Your task to perform on an android device: Search for seafood restaurants on Google Maps Image 0: 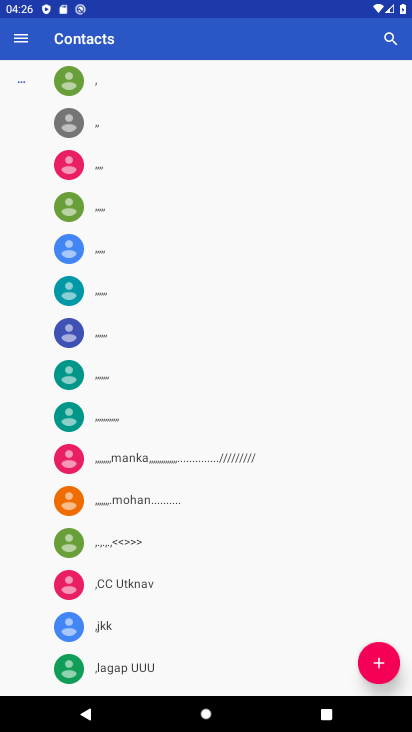
Step 0: press back button
Your task to perform on an android device: Search for seafood restaurants on Google Maps Image 1: 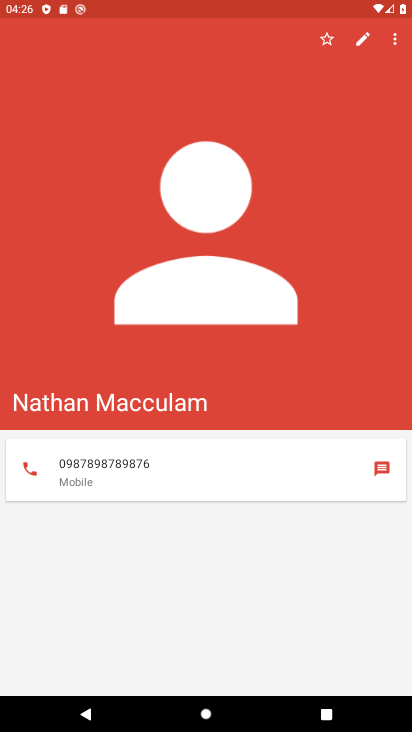
Step 1: press back button
Your task to perform on an android device: Search for seafood restaurants on Google Maps Image 2: 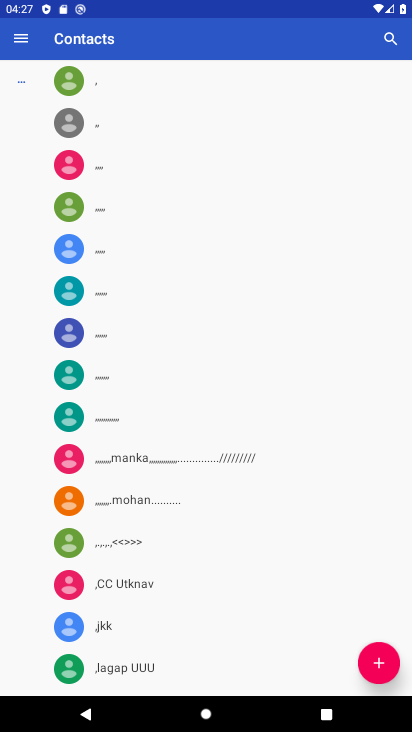
Step 2: press back button
Your task to perform on an android device: Search for seafood restaurants on Google Maps Image 3: 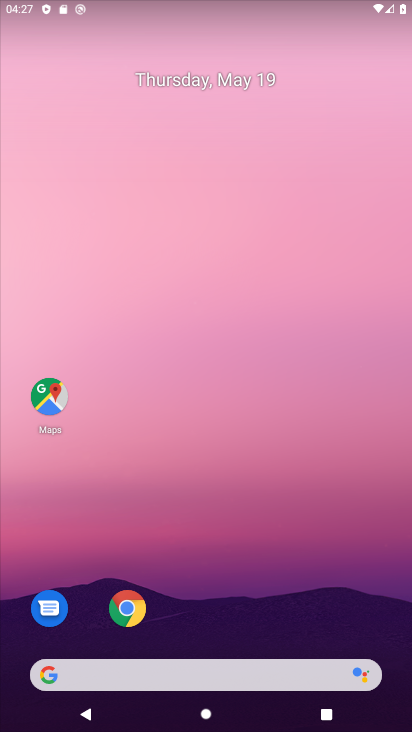
Step 3: click (47, 396)
Your task to perform on an android device: Search for seafood restaurants on Google Maps Image 4: 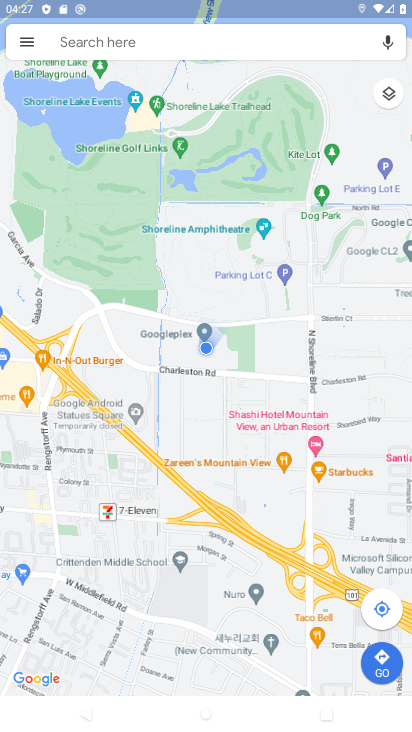
Step 4: click (147, 44)
Your task to perform on an android device: Search for seafood restaurants on Google Maps Image 5: 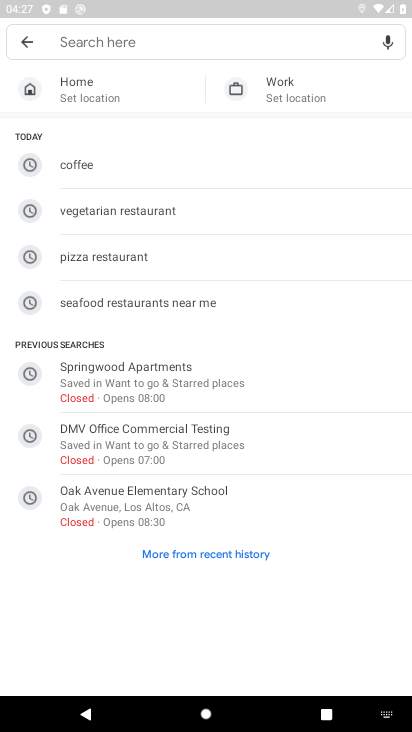
Step 5: type "seafood restaurants"
Your task to perform on an android device: Search for seafood restaurants on Google Maps Image 6: 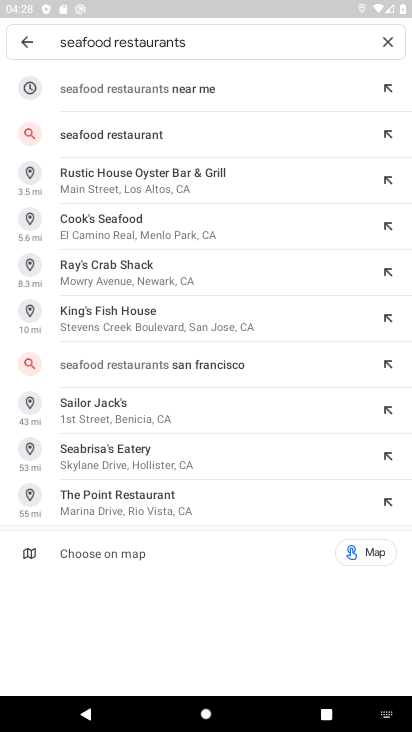
Step 6: click (95, 135)
Your task to perform on an android device: Search for seafood restaurants on Google Maps Image 7: 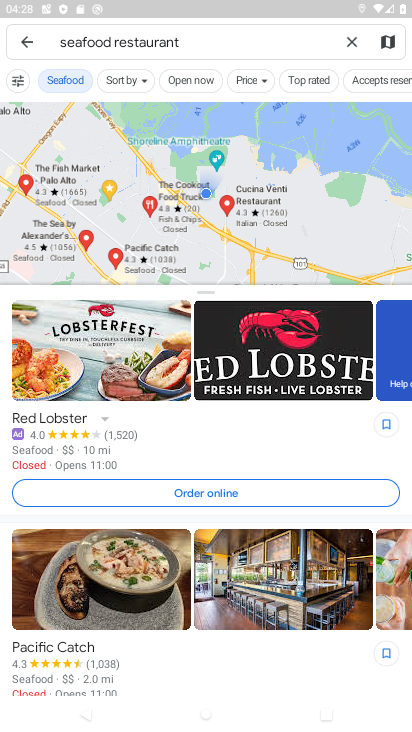
Step 7: task complete